Your task to perform on an android device: Open ESPN.com Image 0: 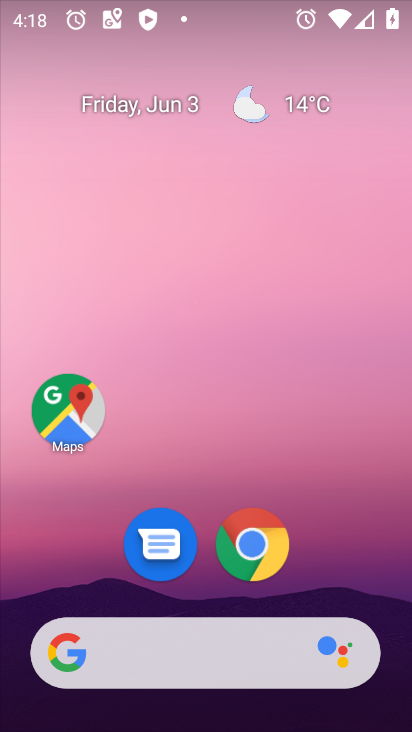
Step 0: click (251, 552)
Your task to perform on an android device: Open ESPN.com Image 1: 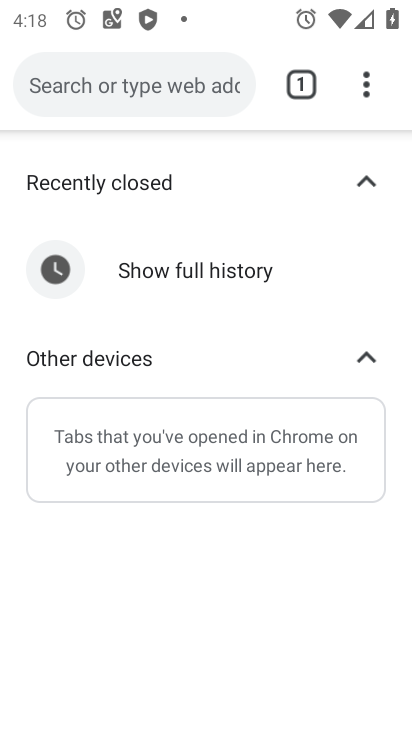
Step 1: click (171, 79)
Your task to perform on an android device: Open ESPN.com Image 2: 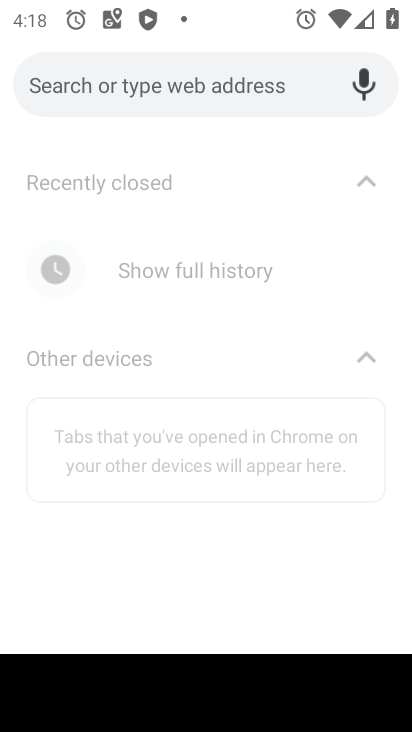
Step 2: type "espn.com"
Your task to perform on an android device: Open ESPN.com Image 3: 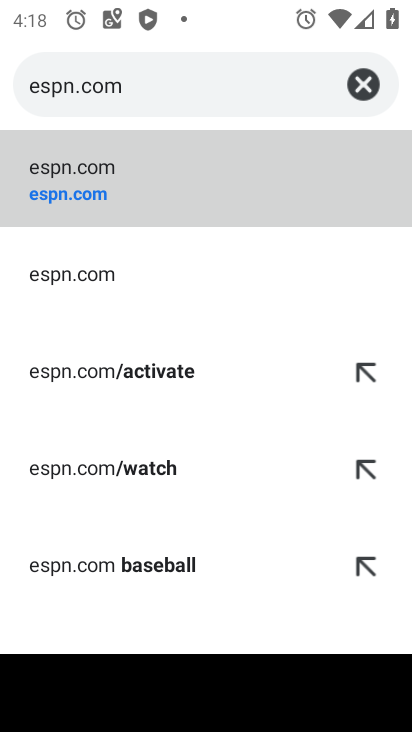
Step 3: click (64, 172)
Your task to perform on an android device: Open ESPN.com Image 4: 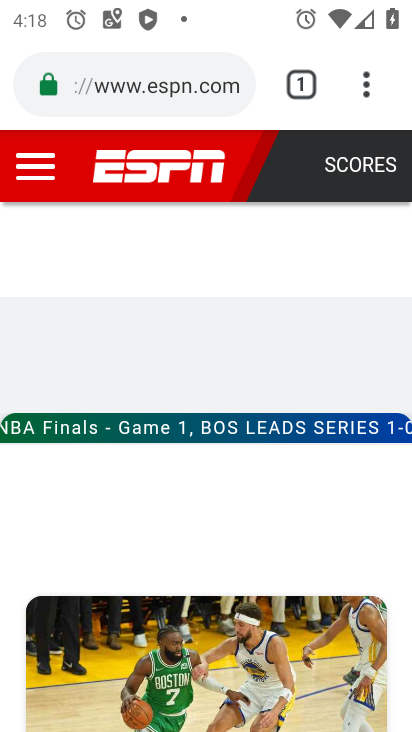
Step 4: task complete